Your task to perform on an android device: turn notification dots off Image 0: 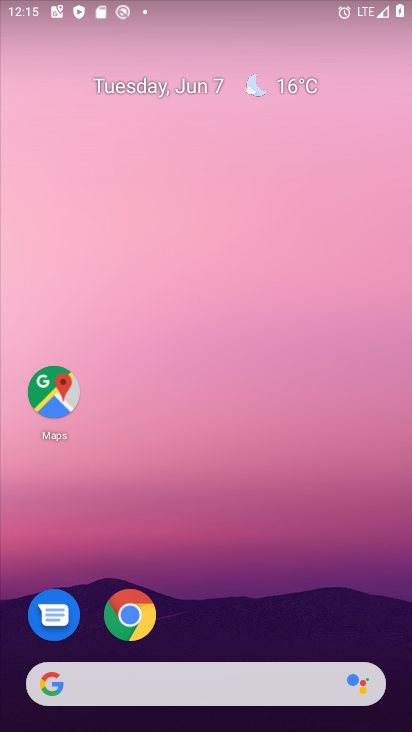
Step 0: press home button
Your task to perform on an android device: turn notification dots off Image 1: 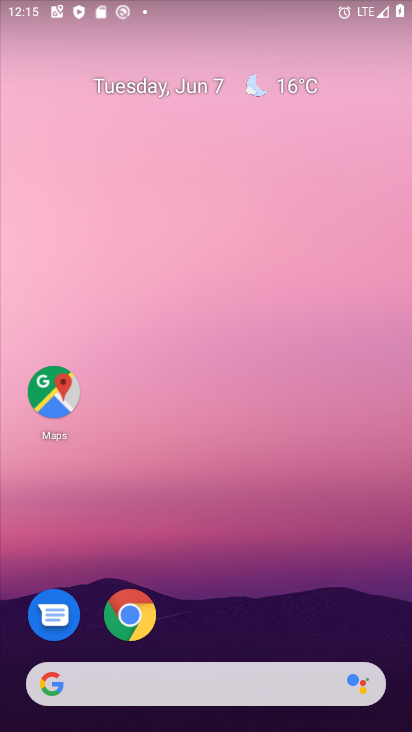
Step 1: drag from (219, 639) to (222, 91)
Your task to perform on an android device: turn notification dots off Image 2: 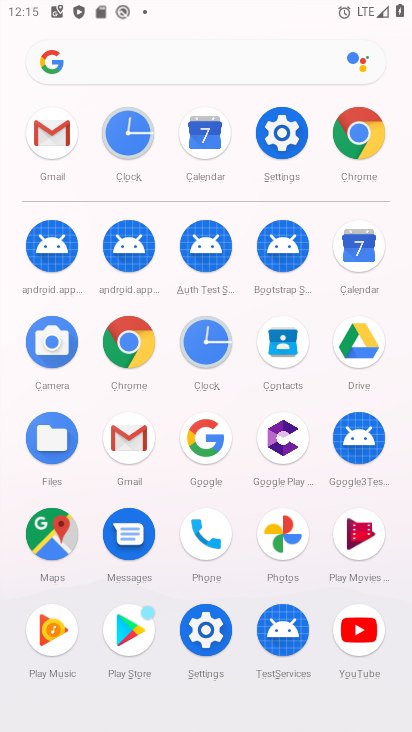
Step 2: click (278, 125)
Your task to perform on an android device: turn notification dots off Image 3: 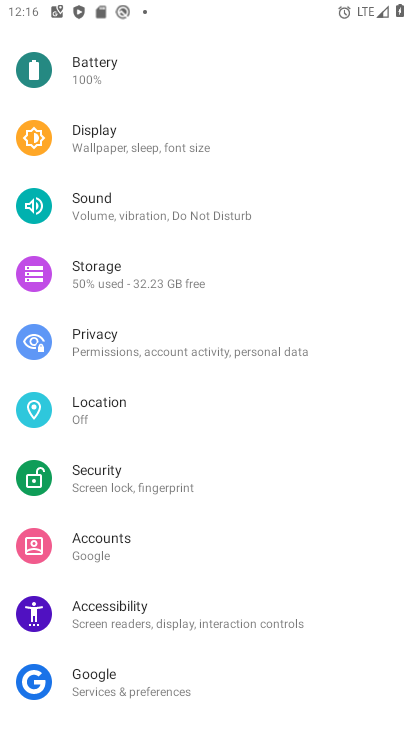
Step 3: drag from (139, 92) to (171, 490)
Your task to perform on an android device: turn notification dots off Image 4: 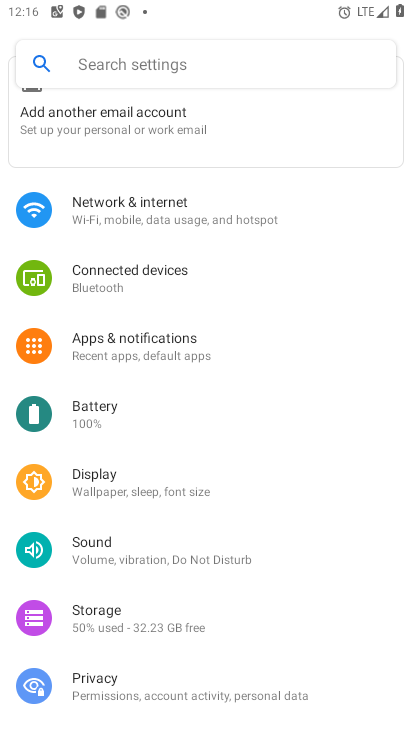
Step 4: click (215, 338)
Your task to perform on an android device: turn notification dots off Image 5: 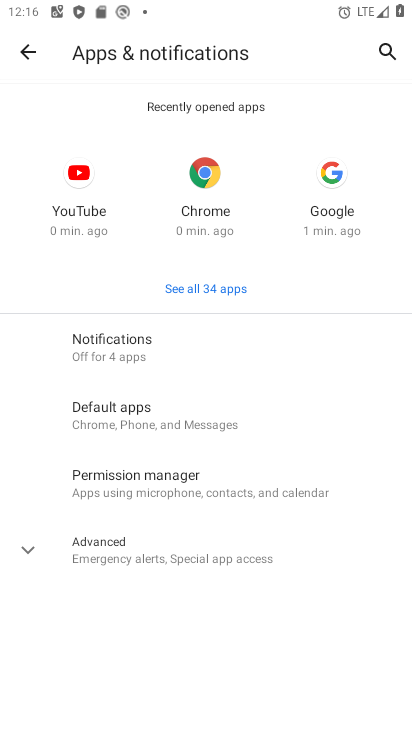
Step 5: click (163, 341)
Your task to perform on an android device: turn notification dots off Image 6: 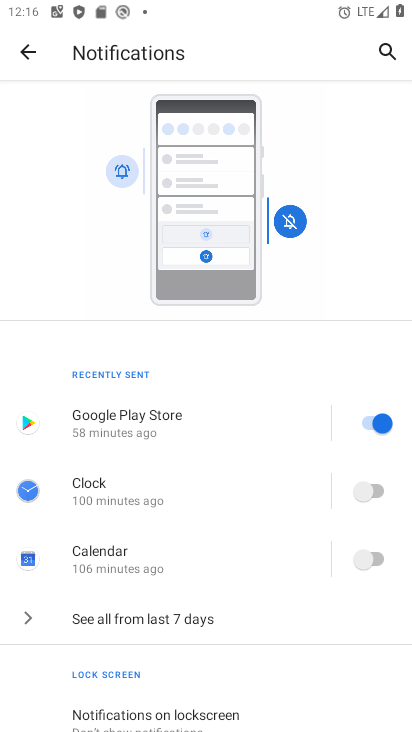
Step 6: drag from (233, 669) to (277, 159)
Your task to perform on an android device: turn notification dots off Image 7: 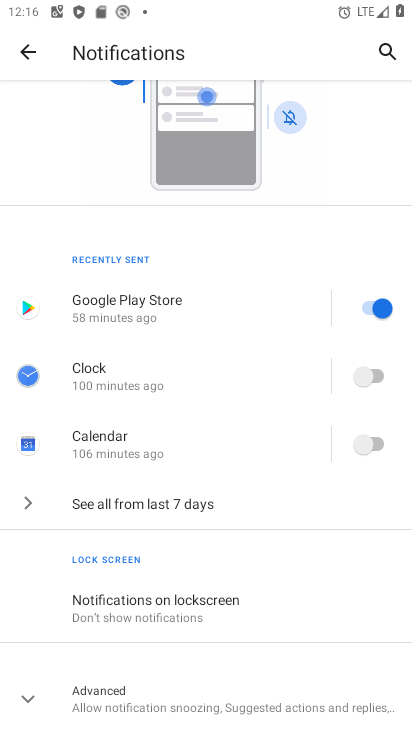
Step 7: click (26, 692)
Your task to perform on an android device: turn notification dots off Image 8: 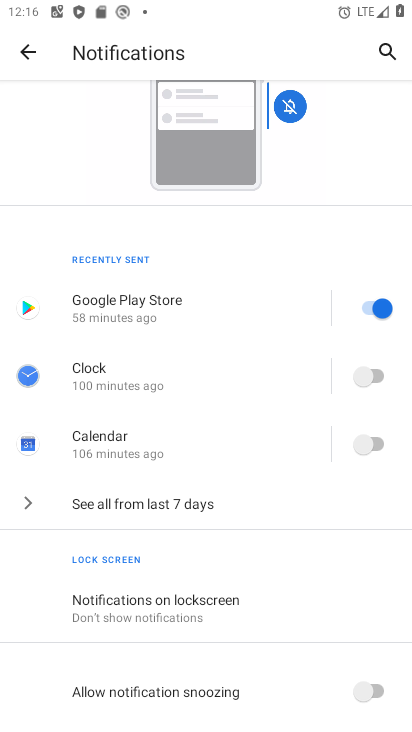
Step 8: drag from (256, 663) to (286, 294)
Your task to perform on an android device: turn notification dots off Image 9: 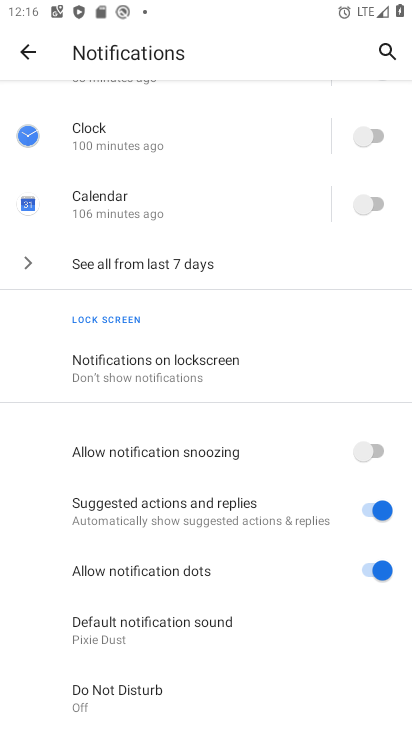
Step 9: click (367, 567)
Your task to perform on an android device: turn notification dots off Image 10: 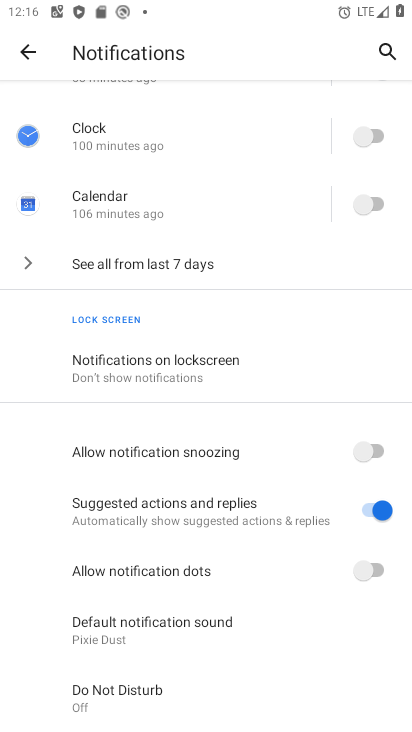
Step 10: task complete